Your task to perform on an android device: toggle pop-ups in chrome Image 0: 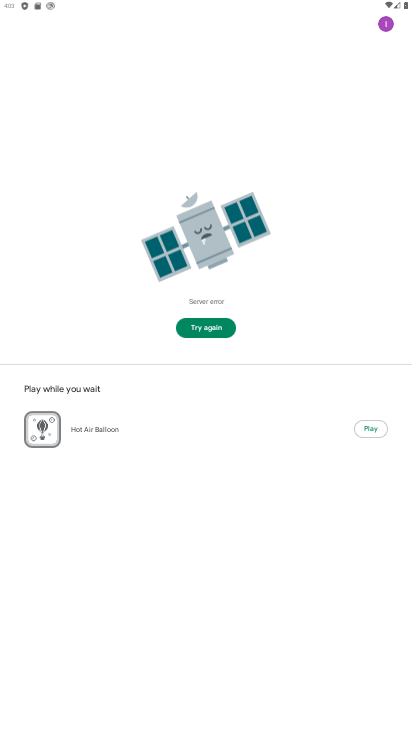
Step 0: press home button
Your task to perform on an android device: toggle pop-ups in chrome Image 1: 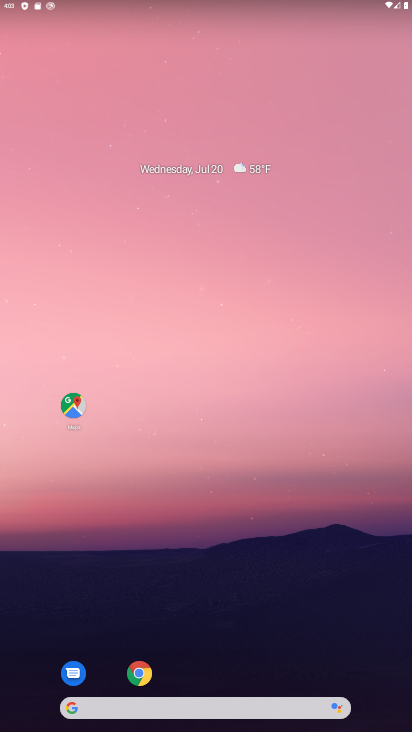
Step 1: click (139, 671)
Your task to perform on an android device: toggle pop-ups in chrome Image 2: 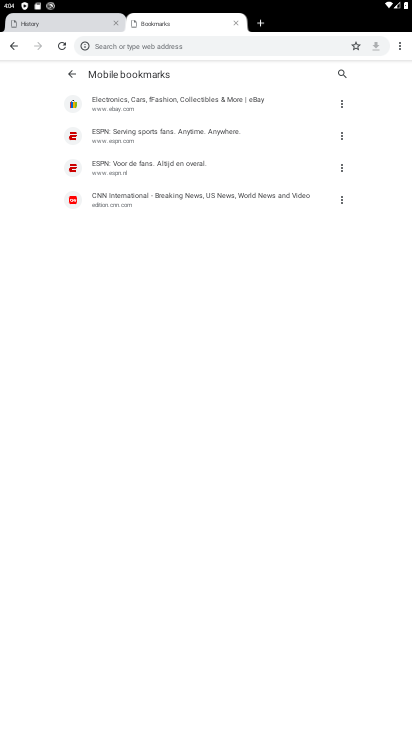
Step 2: task complete